Your task to perform on an android device: Empty the shopping cart on amazon.com. Image 0: 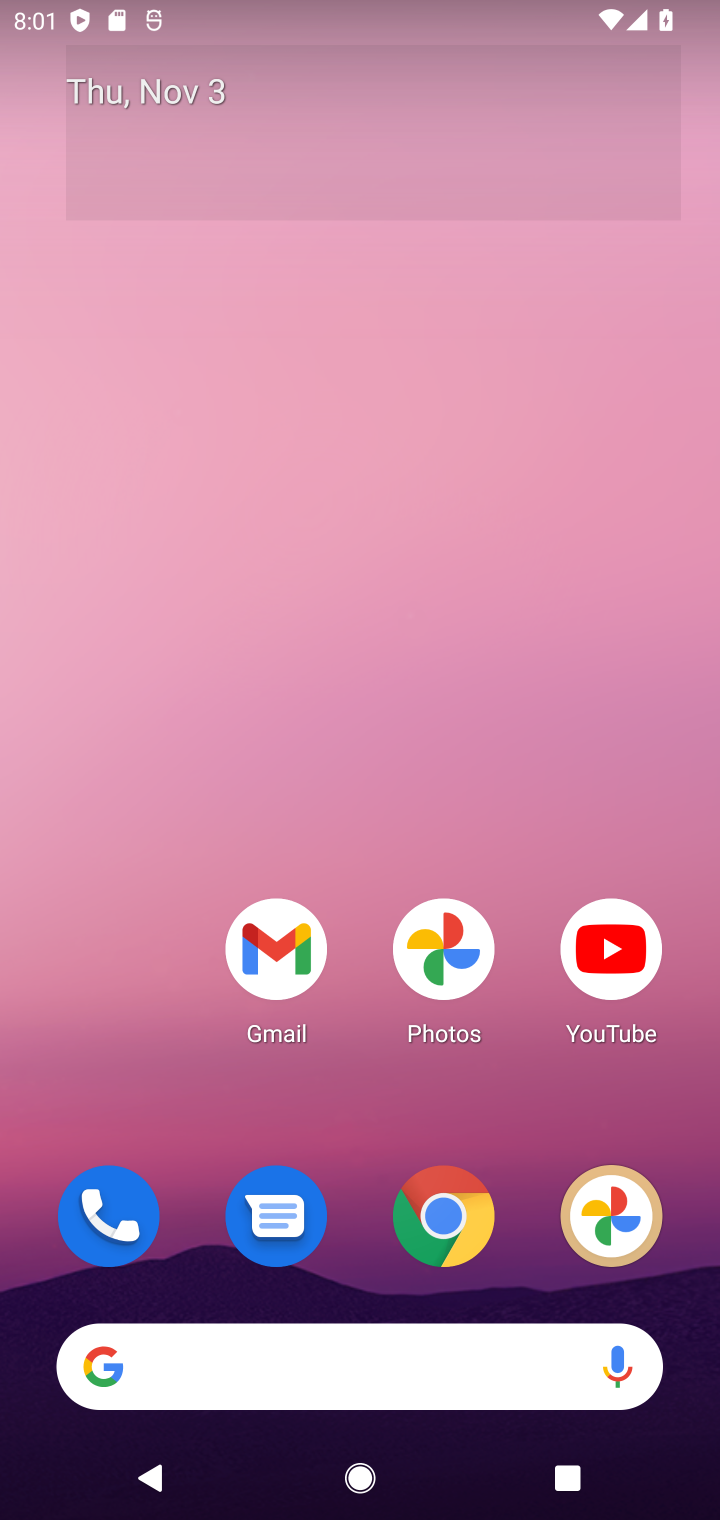
Step 0: click (485, 1243)
Your task to perform on an android device: Empty the shopping cart on amazon.com. Image 1: 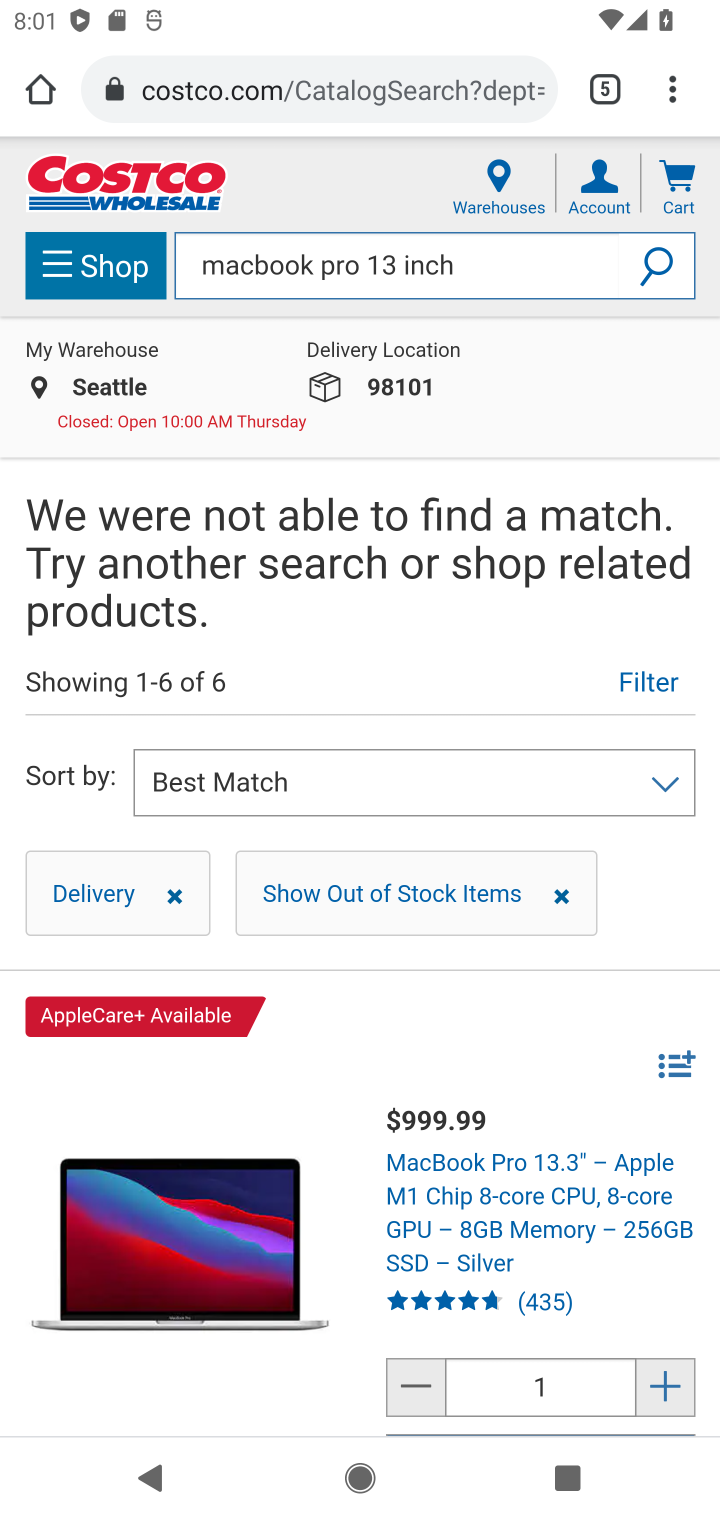
Step 1: click (612, 98)
Your task to perform on an android device: Empty the shopping cart on amazon.com. Image 2: 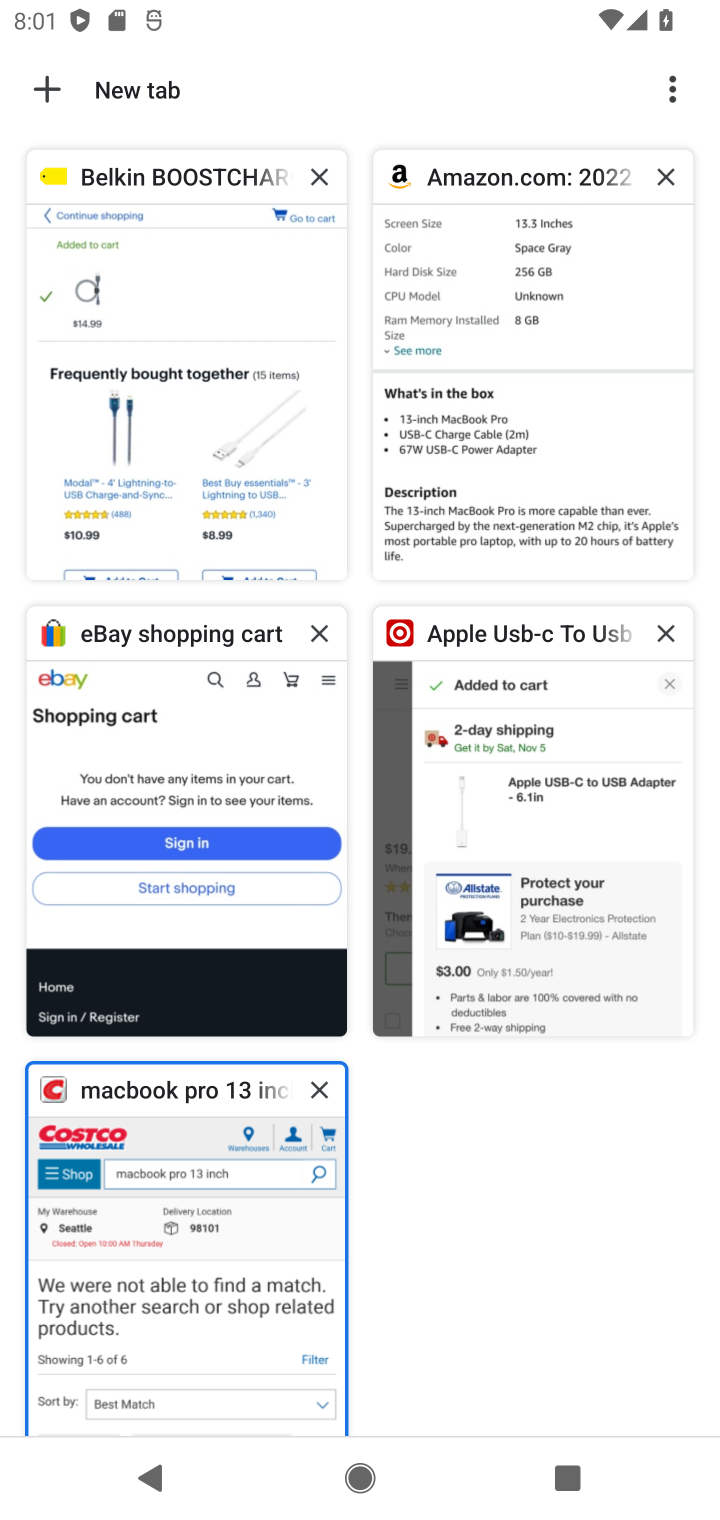
Step 2: click (538, 309)
Your task to perform on an android device: Empty the shopping cart on amazon.com. Image 3: 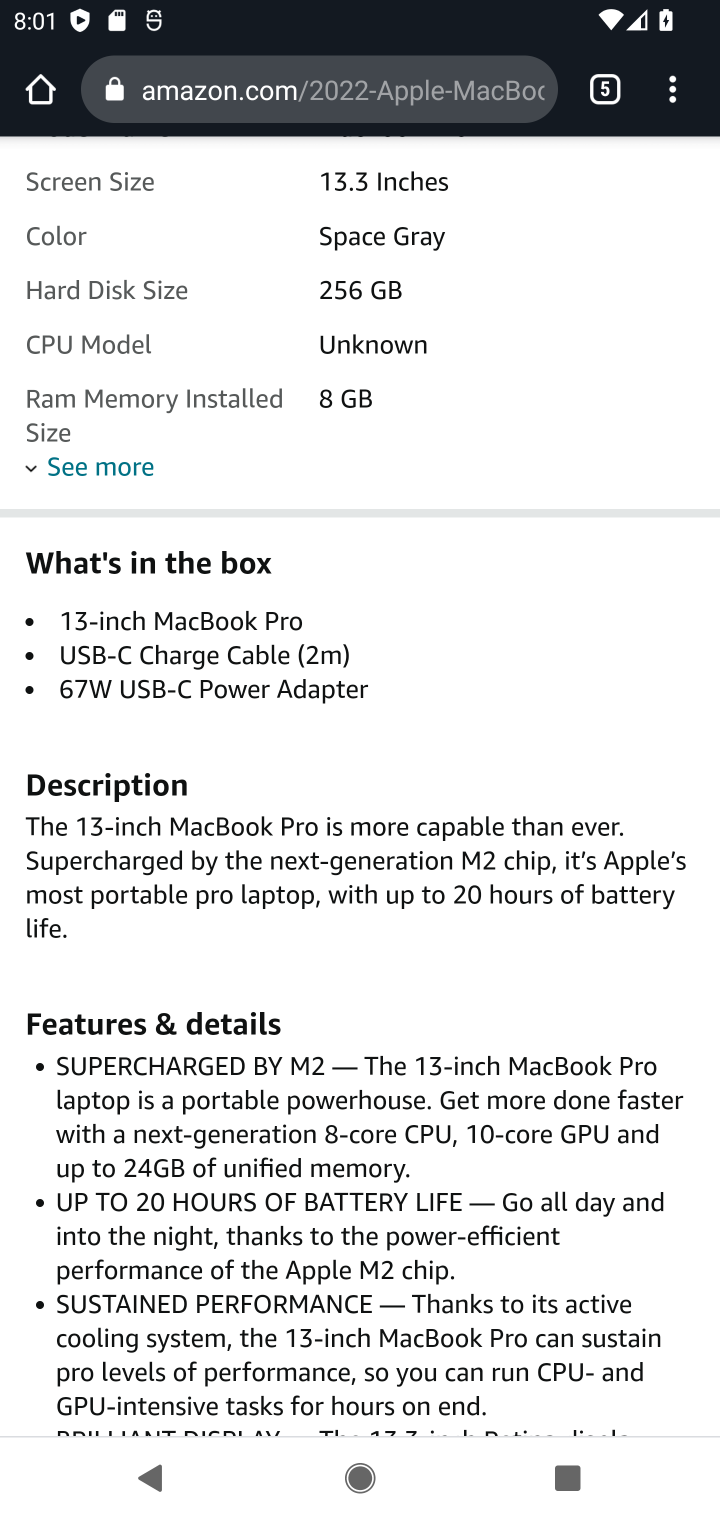
Step 3: drag from (562, 296) to (498, 1128)
Your task to perform on an android device: Empty the shopping cart on amazon.com. Image 4: 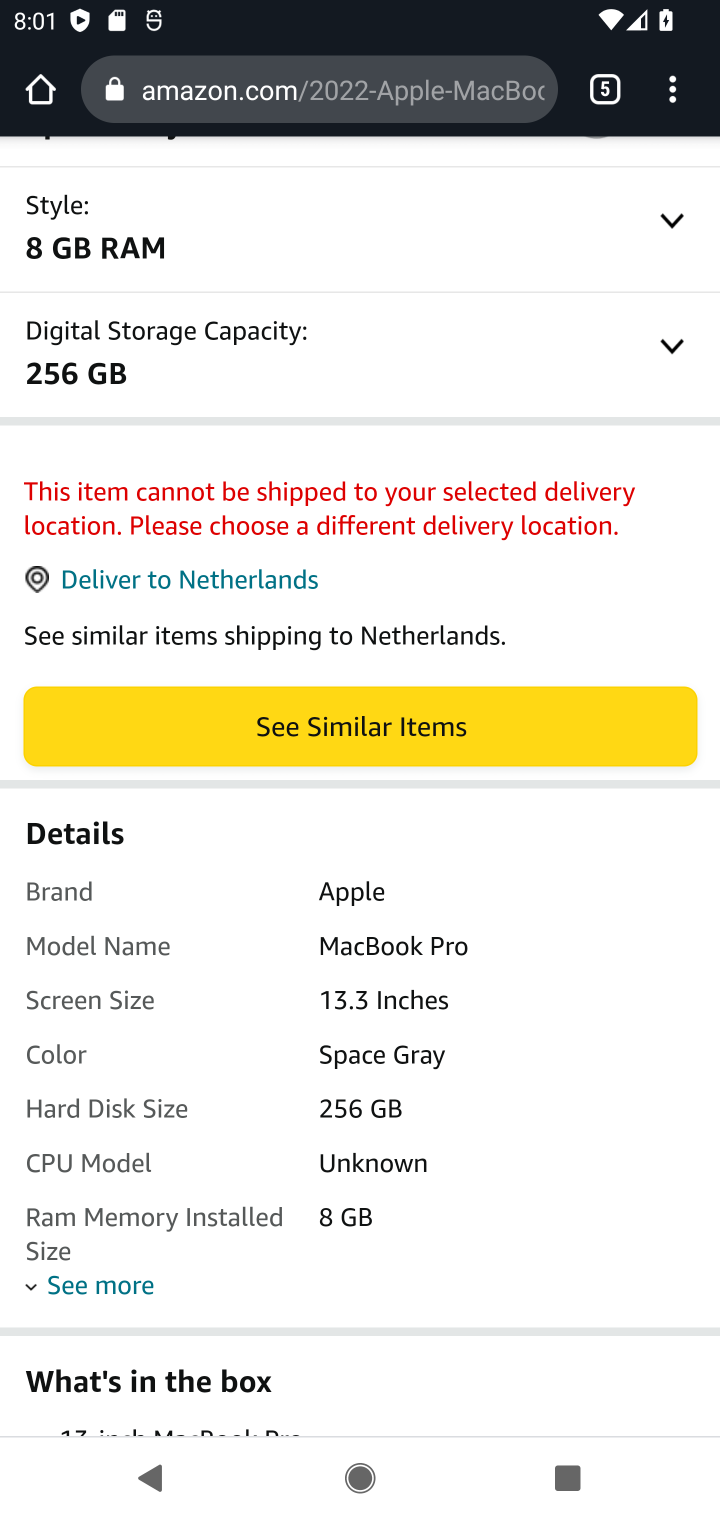
Step 4: drag from (593, 241) to (594, 1043)
Your task to perform on an android device: Empty the shopping cart on amazon.com. Image 5: 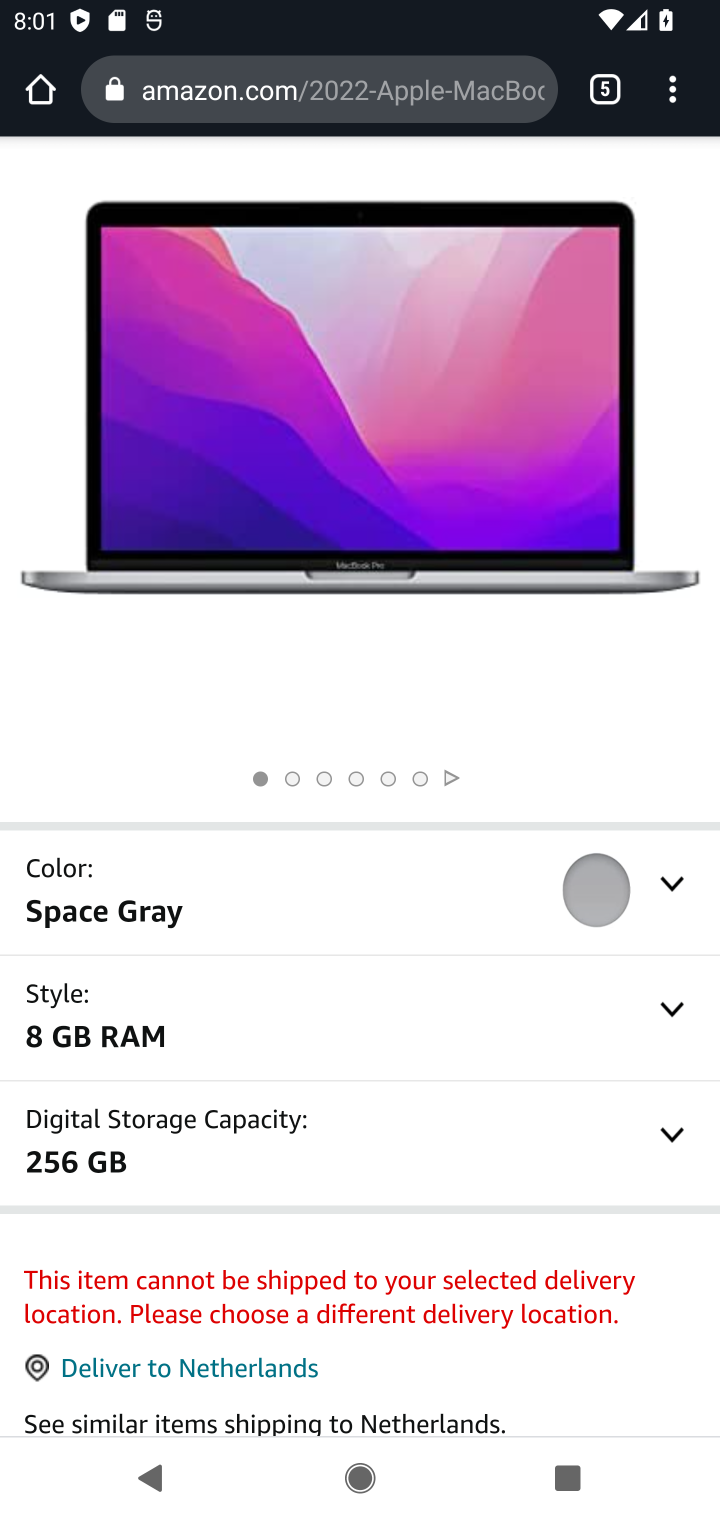
Step 5: drag from (610, 282) to (576, 1101)
Your task to perform on an android device: Empty the shopping cart on amazon.com. Image 6: 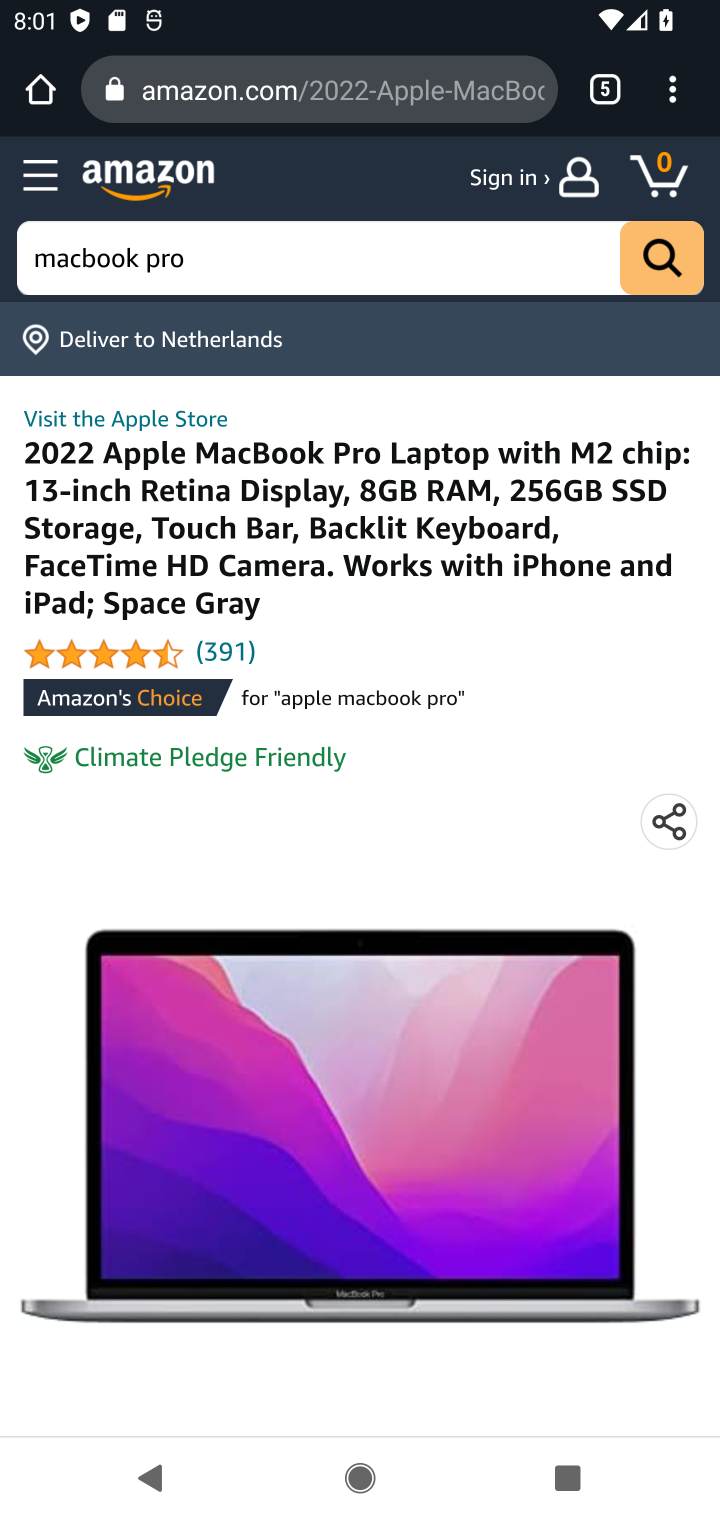
Step 6: drag from (533, 293) to (530, 771)
Your task to perform on an android device: Empty the shopping cart on amazon.com. Image 7: 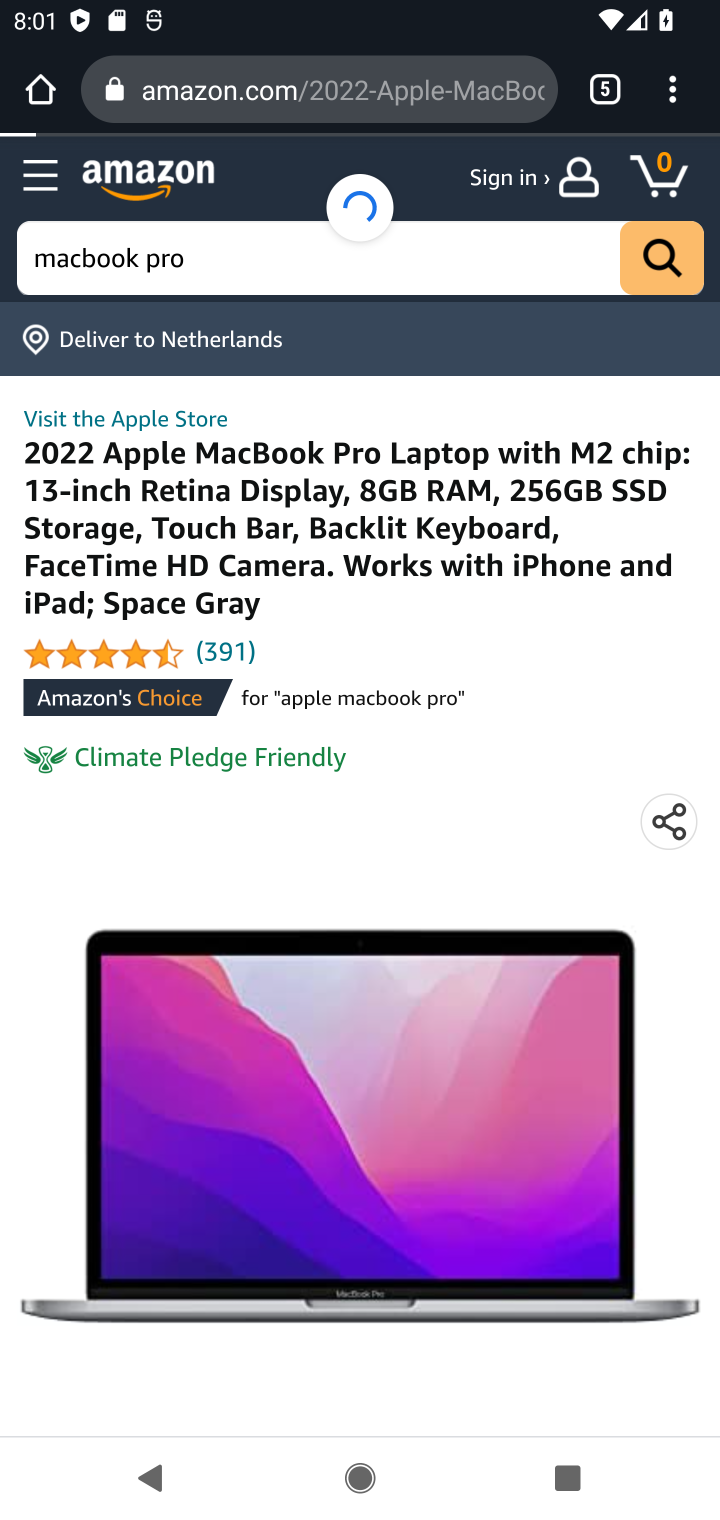
Step 7: click (667, 183)
Your task to perform on an android device: Empty the shopping cart on amazon.com. Image 8: 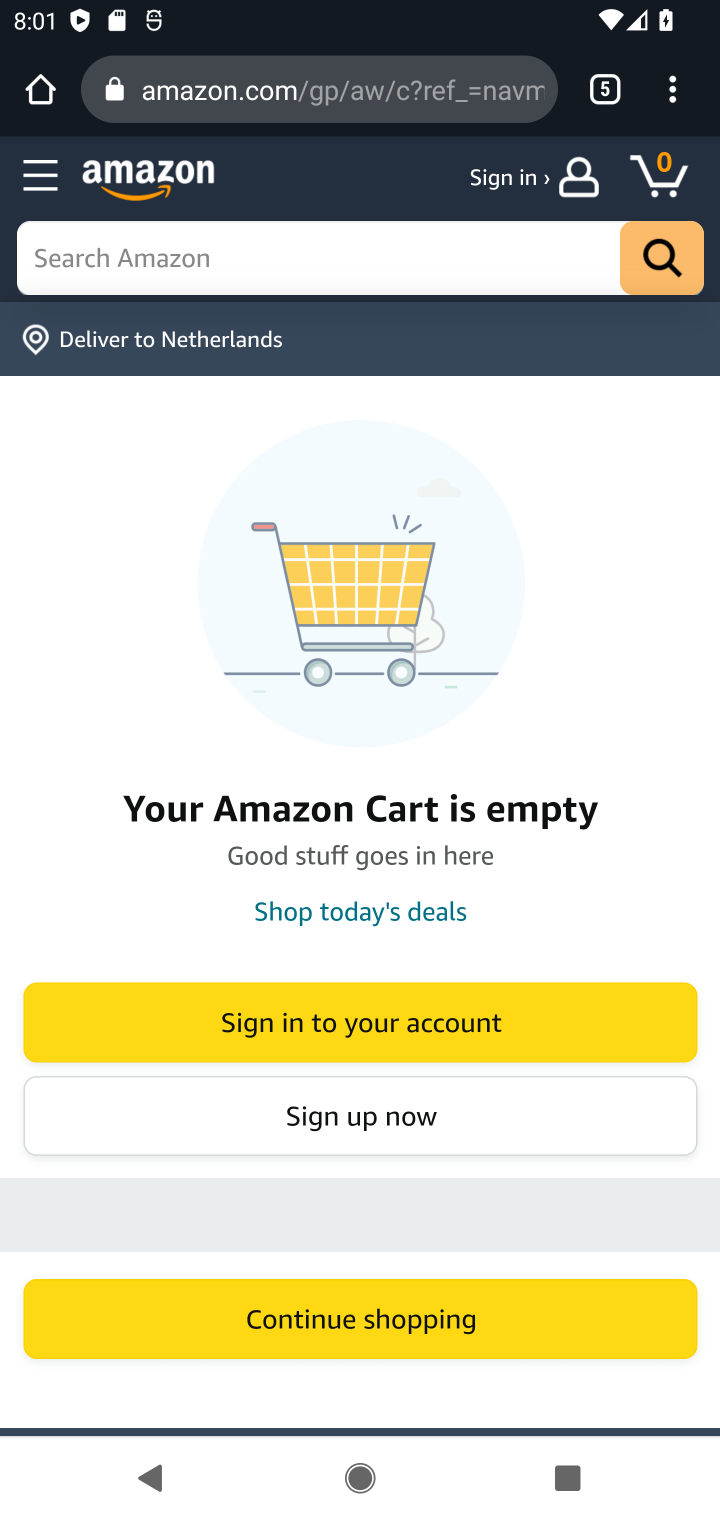
Step 8: task complete